Your task to perform on an android device: Search for "alienware aurora" on amazon, select the first entry, add it to the cart, then select checkout. Image 0: 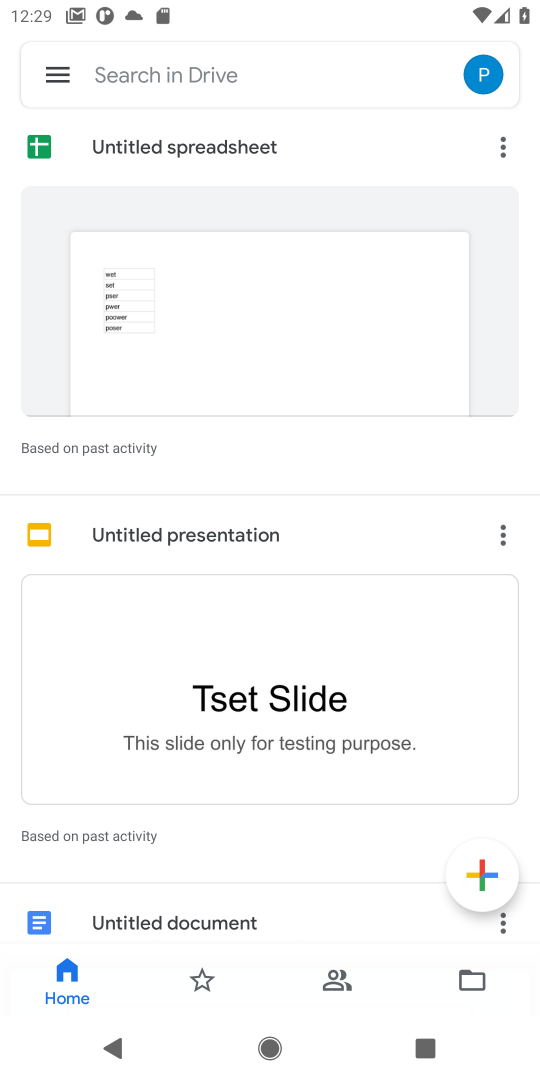
Step 0: press home button
Your task to perform on an android device: Search for "alienware aurora" on amazon, select the first entry, add it to the cart, then select checkout. Image 1: 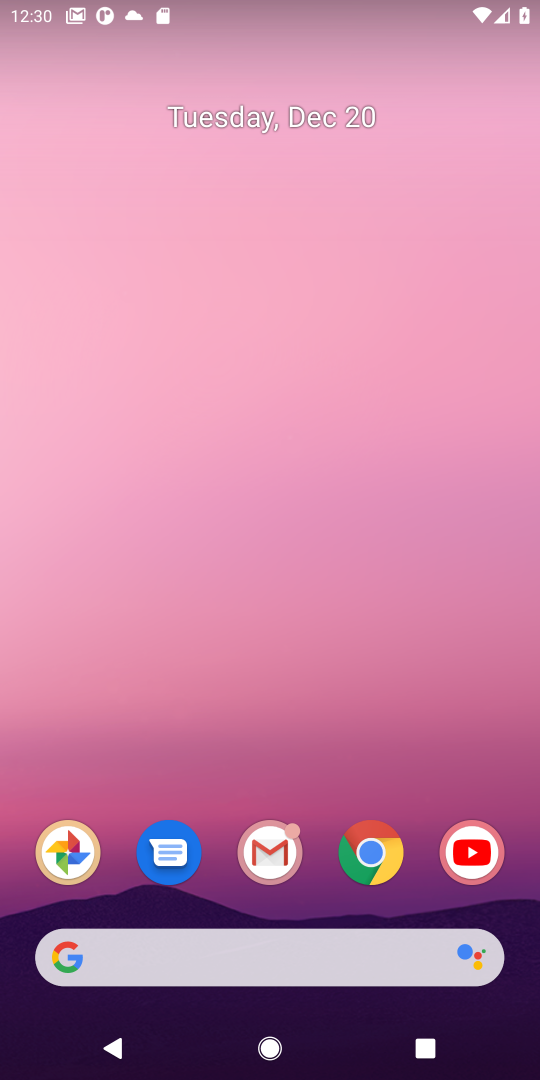
Step 1: click (368, 860)
Your task to perform on an android device: Search for "alienware aurora" on amazon, select the first entry, add it to the cart, then select checkout. Image 2: 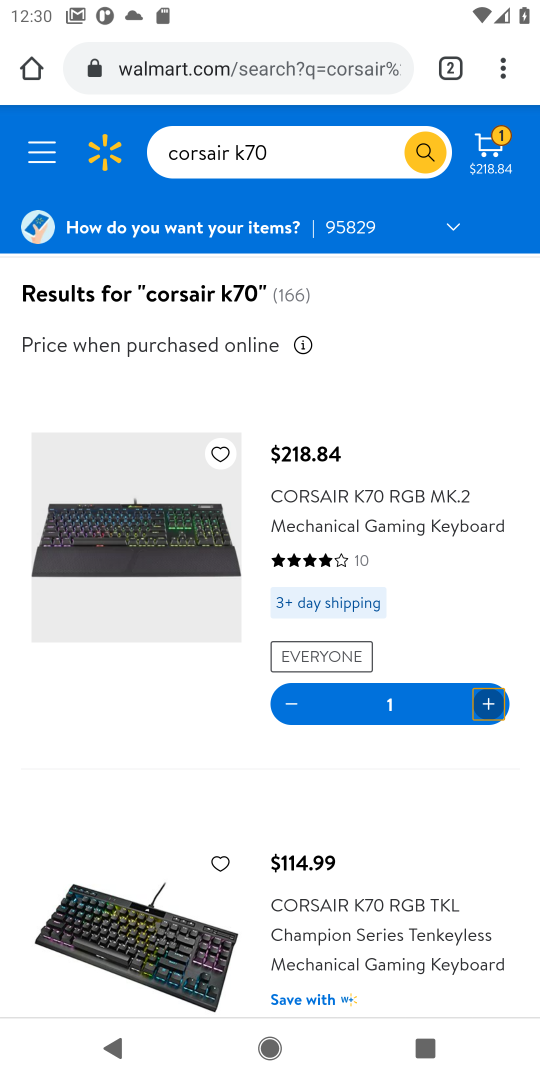
Step 2: click (191, 72)
Your task to perform on an android device: Search for "alienware aurora" on amazon, select the first entry, add it to the cart, then select checkout. Image 3: 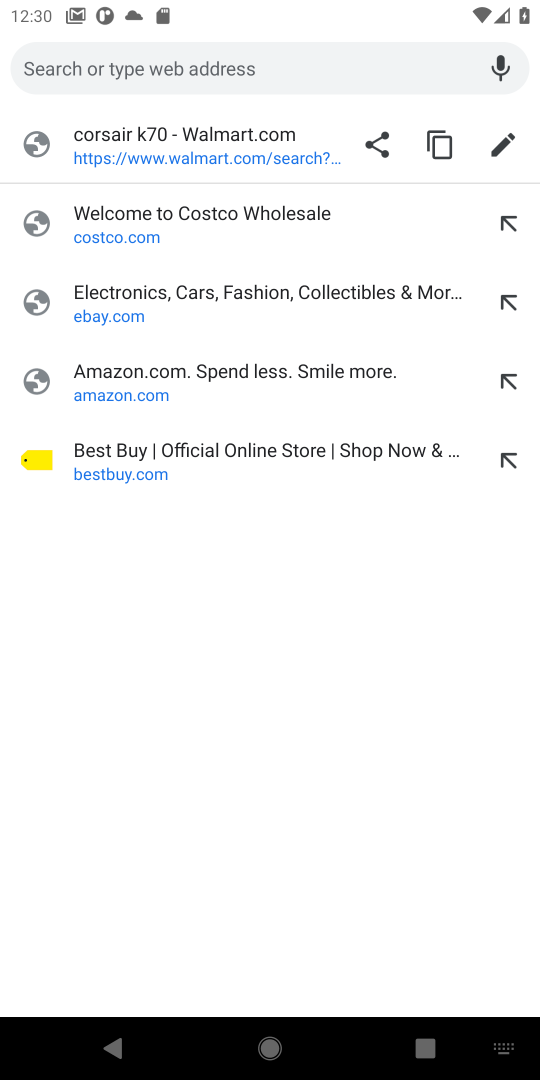
Step 3: click (99, 372)
Your task to perform on an android device: Search for "alienware aurora" on amazon, select the first entry, add it to the cart, then select checkout. Image 4: 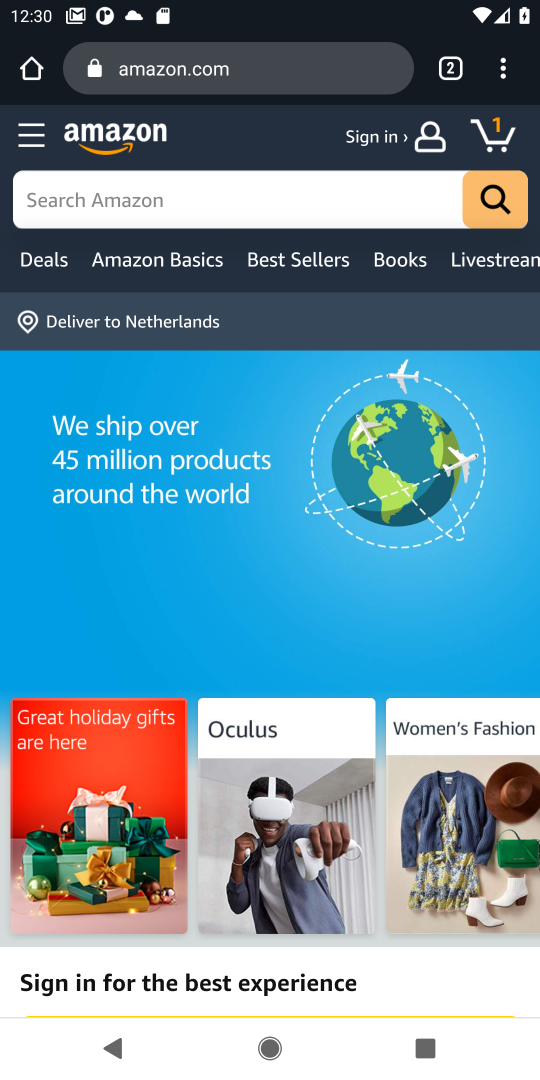
Step 4: click (201, 199)
Your task to perform on an android device: Search for "alienware aurora" on amazon, select the first entry, add it to the cart, then select checkout. Image 5: 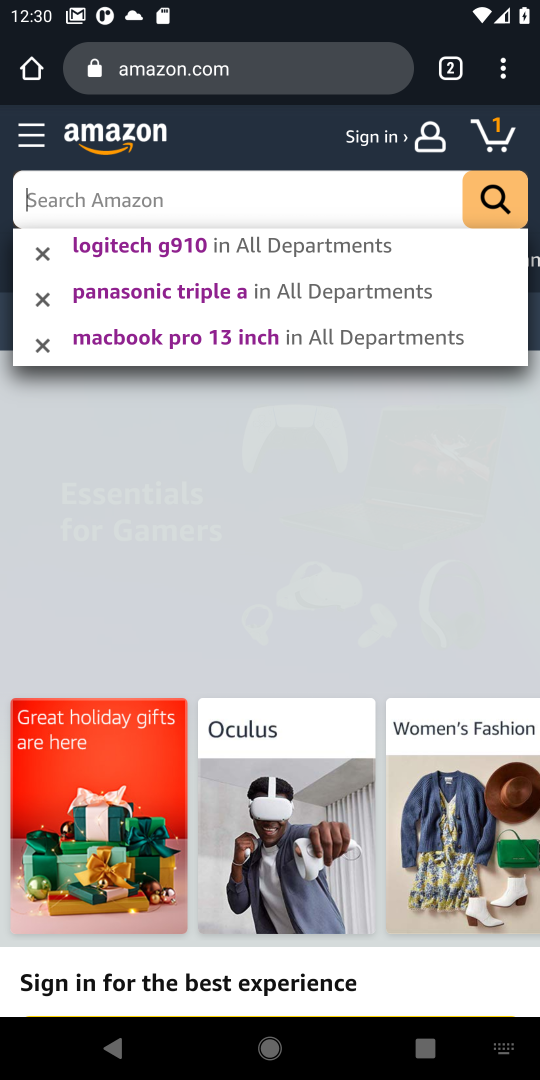
Step 5: type "alienware aurora"
Your task to perform on an android device: Search for "alienware aurora" on amazon, select the first entry, add it to the cart, then select checkout. Image 6: 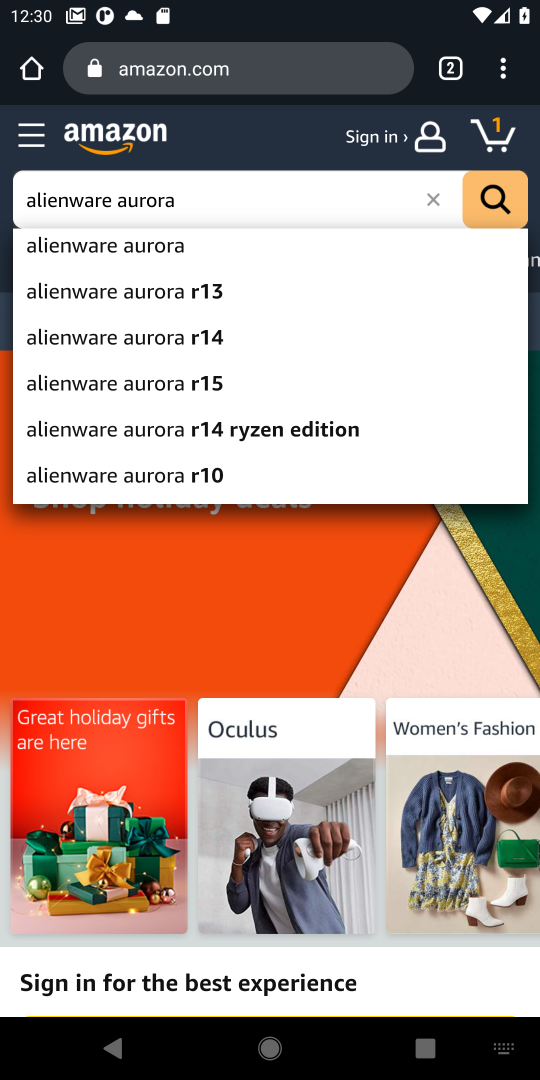
Step 6: click (118, 250)
Your task to perform on an android device: Search for "alienware aurora" on amazon, select the first entry, add it to the cart, then select checkout. Image 7: 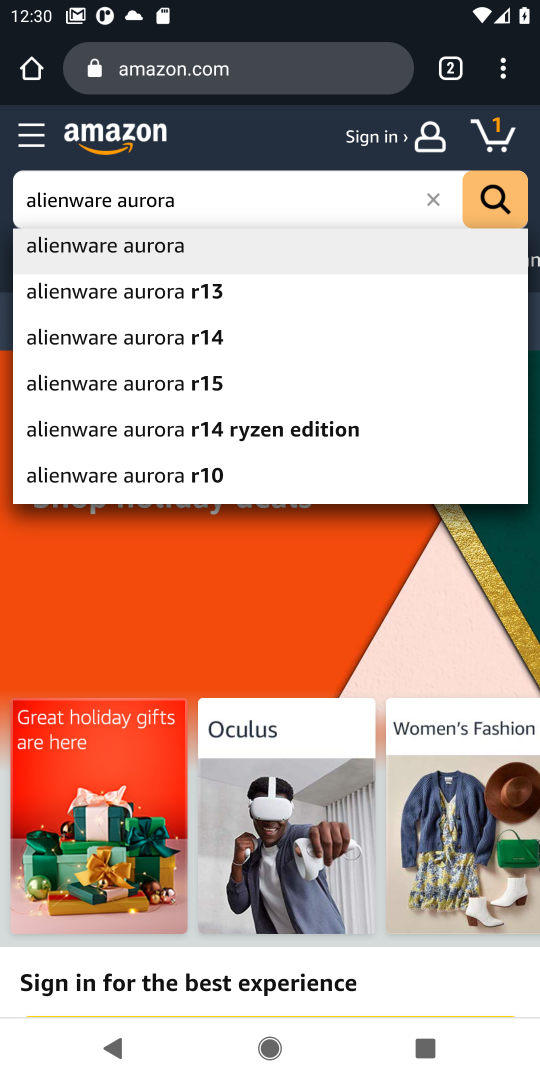
Step 7: click (120, 243)
Your task to perform on an android device: Search for "alienware aurora" on amazon, select the first entry, add it to the cart, then select checkout. Image 8: 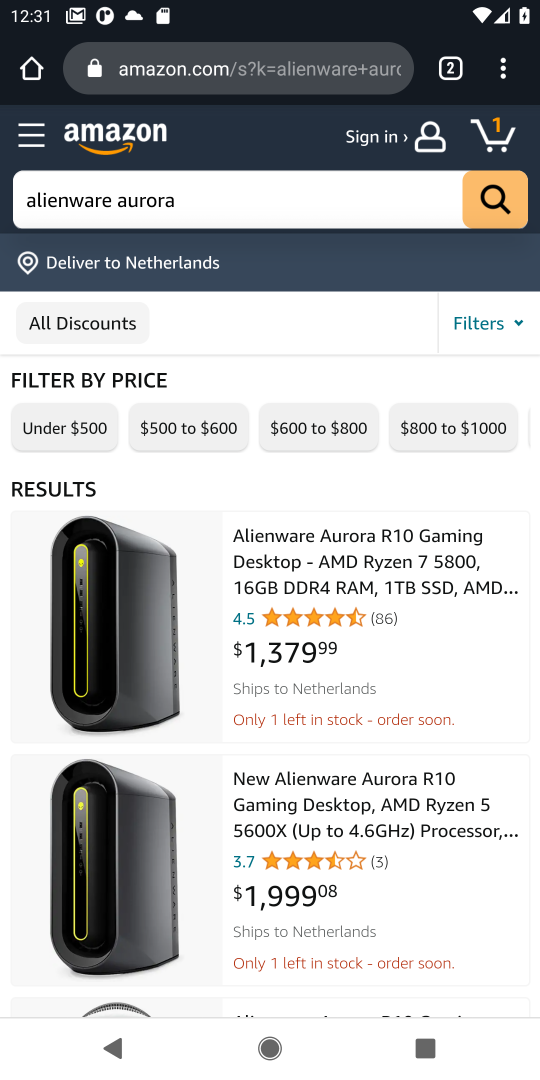
Step 8: click (302, 567)
Your task to perform on an android device: Search for "alienware aurora" on amazon, select the first entry, add it to the cart, then select checkout. Image 9: 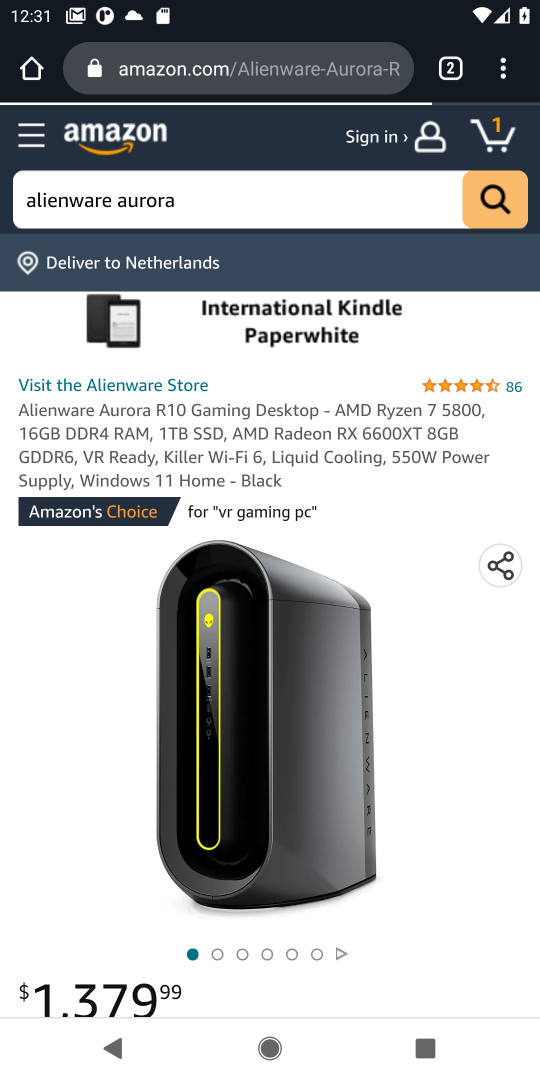
Step 9: drag from (245, 783) to (248, 318)
Your task to perform on an android device: Search for "alienware aurora" on amazon, select the first entry, add it to the cart, then select checkout. Image 10: 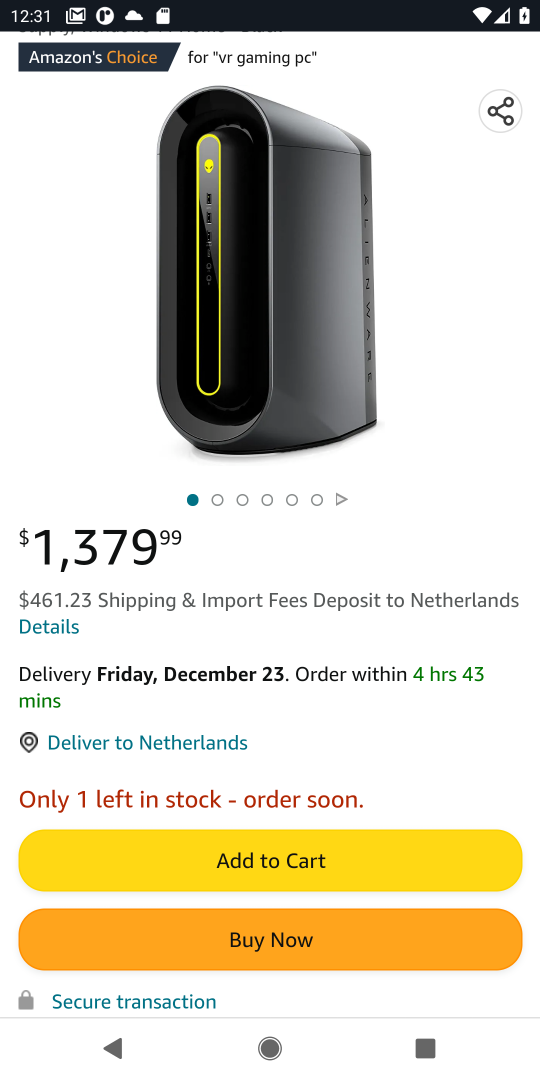
Step 10: click (247, 854)
Your task to perform on an android device: Search for "alienware aurora" on amazon, select the first entry, add it to the cart, then select checkout. Image 11: 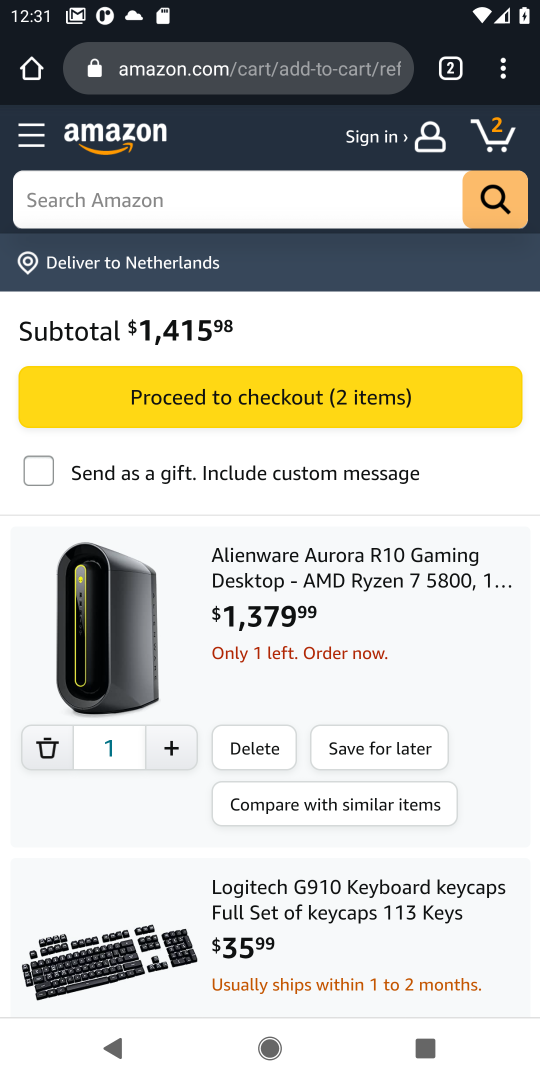
Step 11: click (237, 395)
Your task to perform on an android device: Search for "alienware aurora" on amazon, select the first entry, add it to the cart, then select checkout. Image 12: 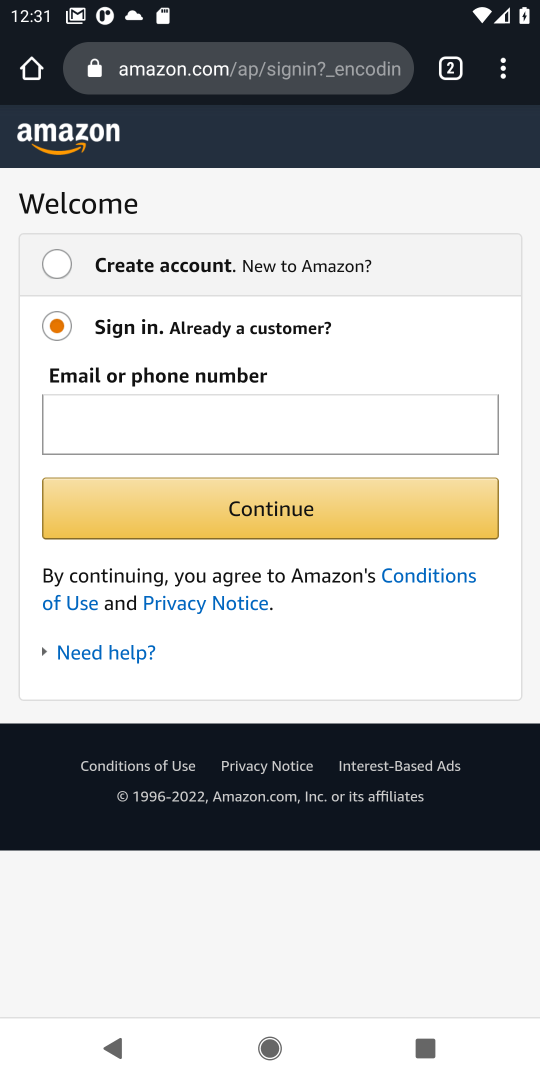
Step 12: task complete